Your task to perform on an android device: change timer sound Image 0: 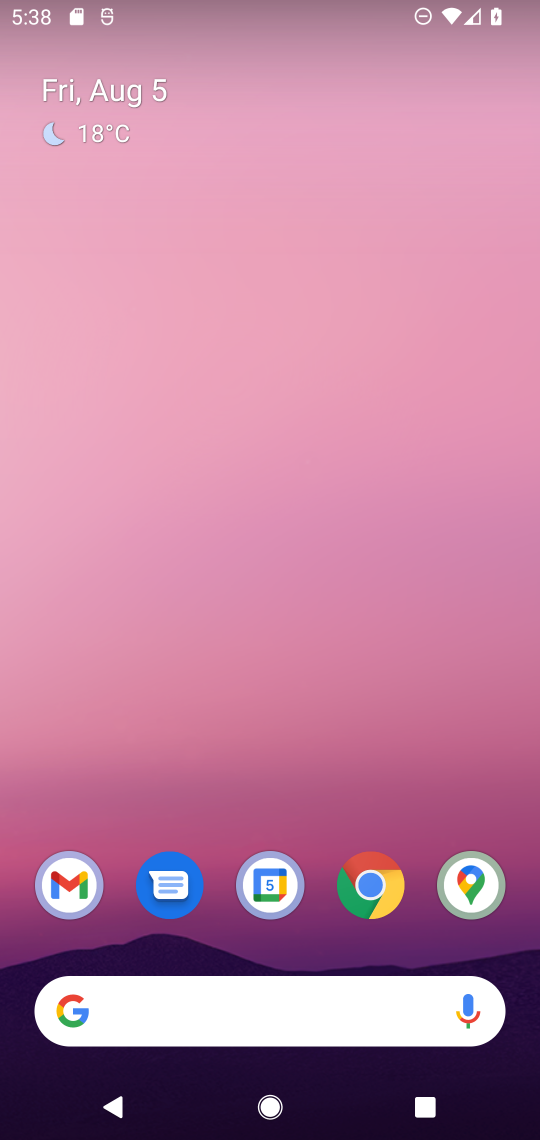
Step 0: drag from (318, 944) to (327, 144)
Your task to perform on an android device: change timer sound Image 1: 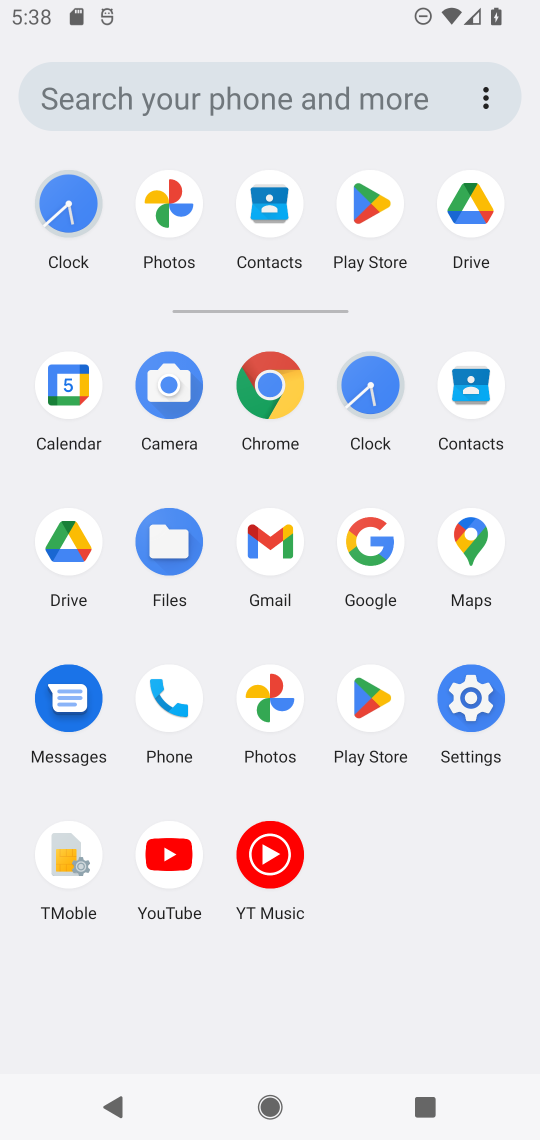
Step 1: click (382, 390)
Your task to perform on an android device: change timer sound Image 2: 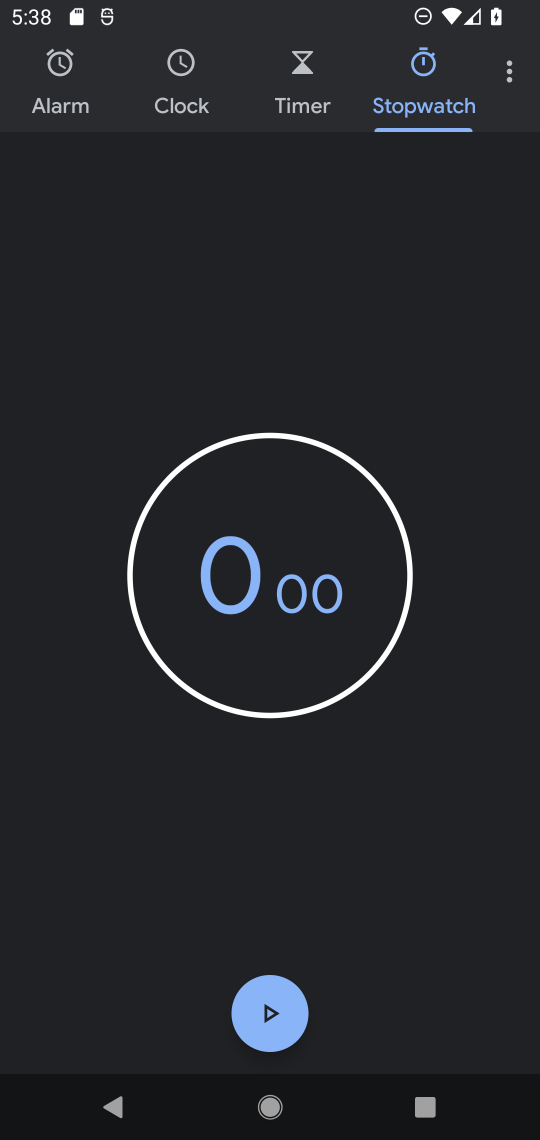
Step 2: click (509, 80)
Your task to perform on an android device: change timer sound Image 3: 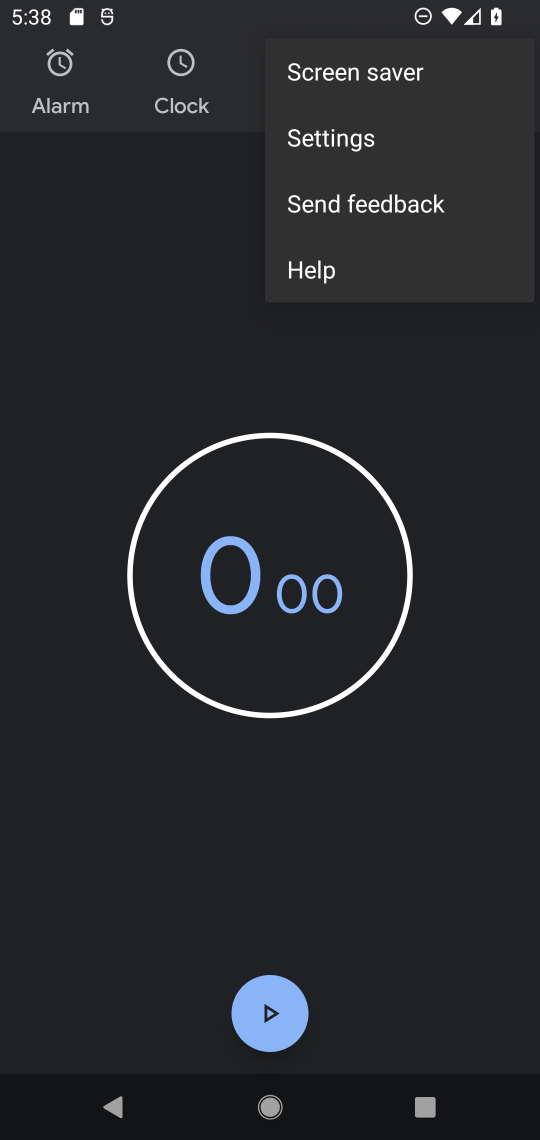
Step 3: click (328, 135)
Your task to perform on an android device: change timer sound Image 4: 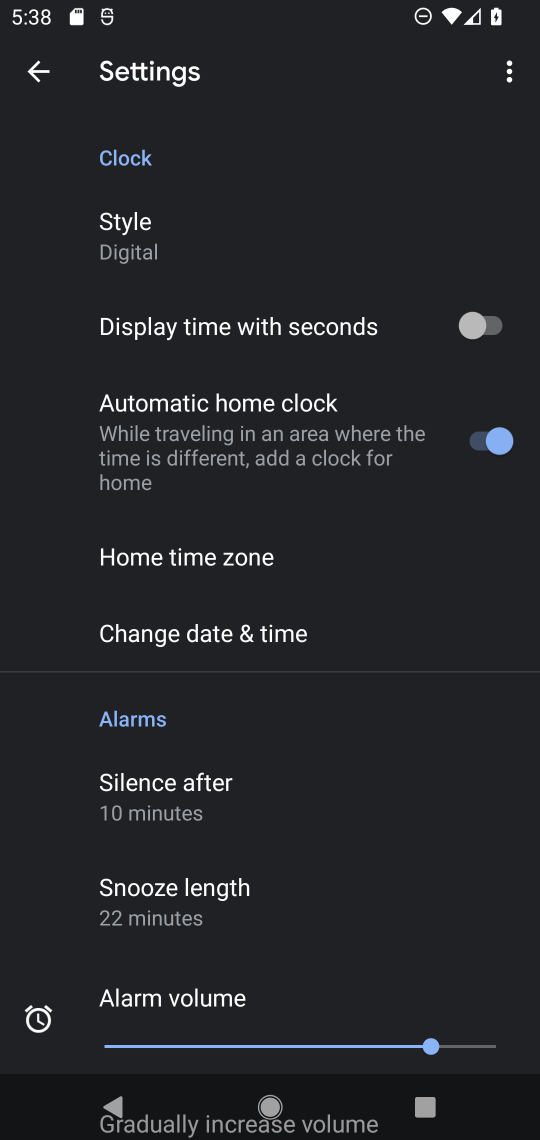
Step 4: drag from (170, 984) to (178, 404)
Your task to perform on an android device: change timer sound Image 5: 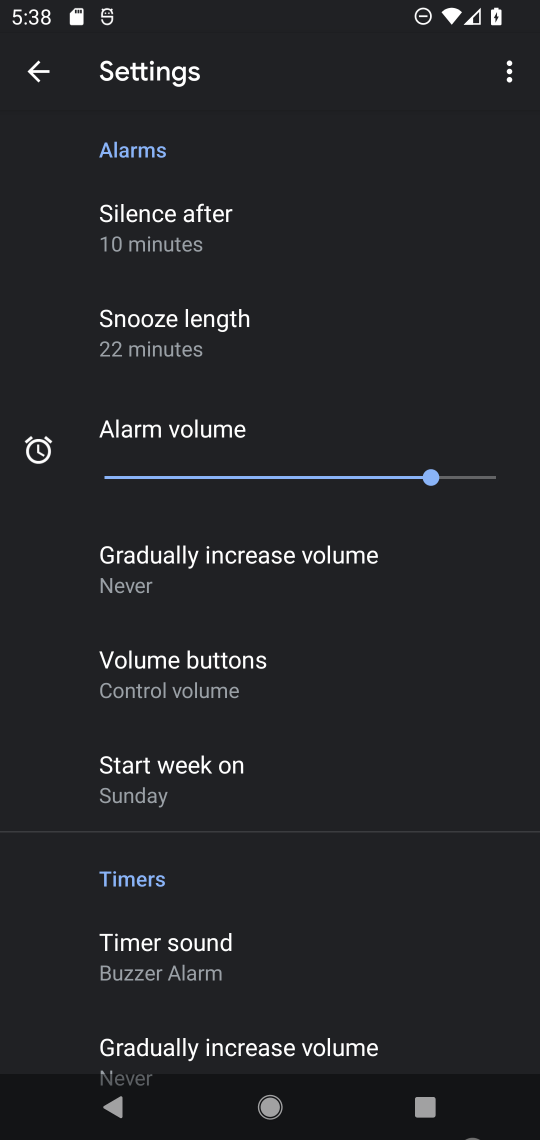
Step 5: click (190, 948)
Your task to perform on an android device: change timer sound Image 6: 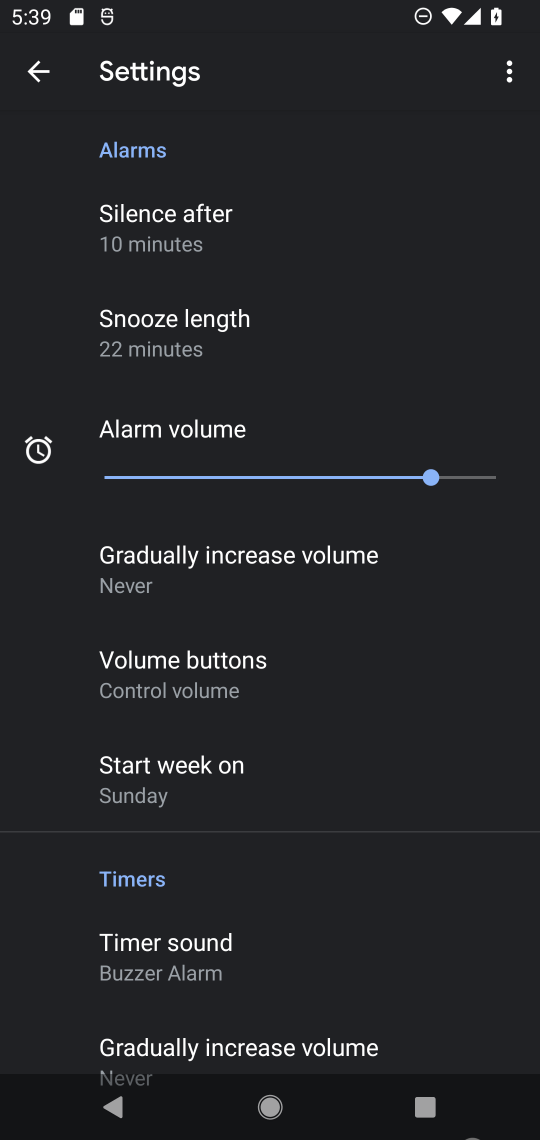
Step 6: click (171, 960)
Your task to perform on an android device: change timer sound Image 7: 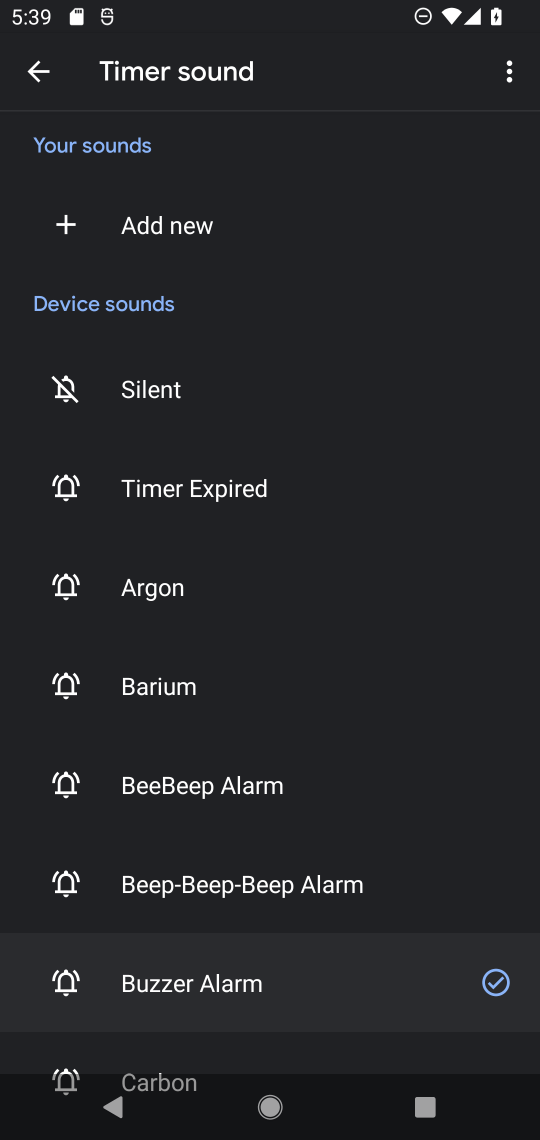
Step 7: click (222, 791)
Your task to perform on an android device: change timer sound Image 8: 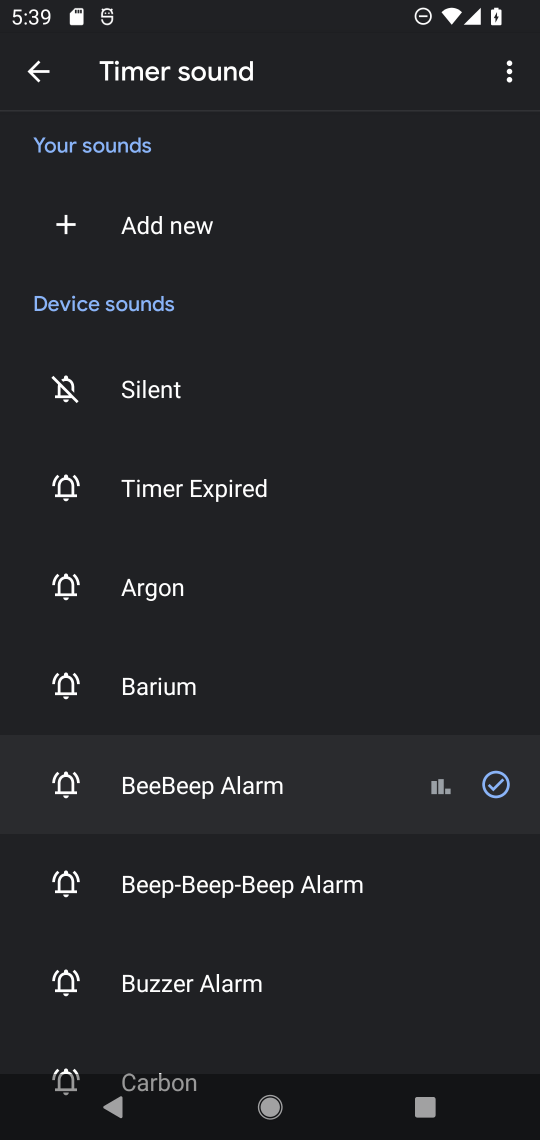
Step 8: task complete